Your task to perform on an android device: check storage Image 0: 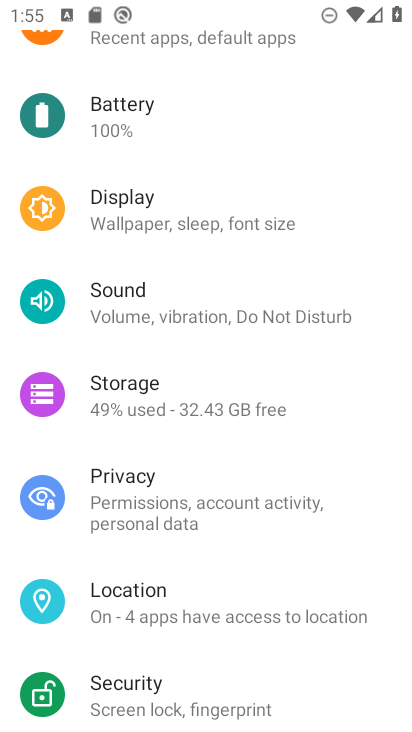
Step 0: click (143, 395)
Your task to perform on an android device: check storage Image 1: 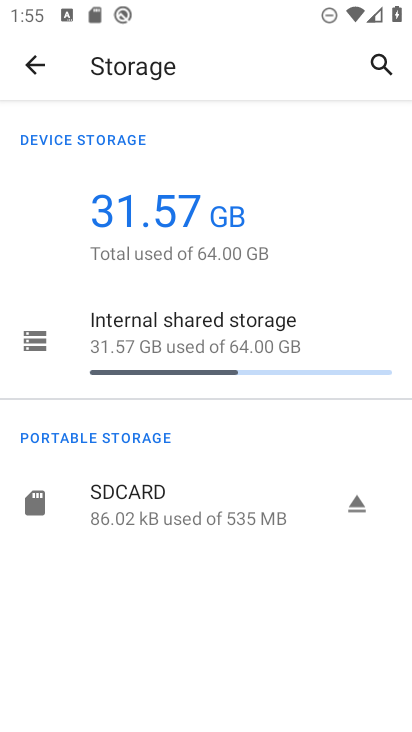
Step 1: task complete